Your task to perform on an android device: set the stopwatch Image 0: 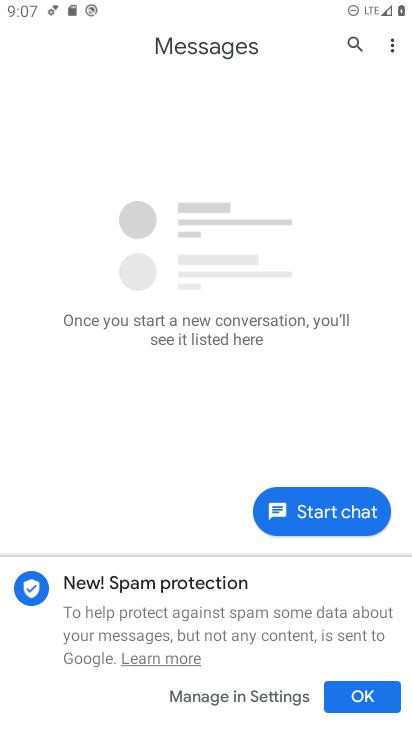
Step 0: press home button
Your task to perform on an android device: set the stopwatch Image 1: 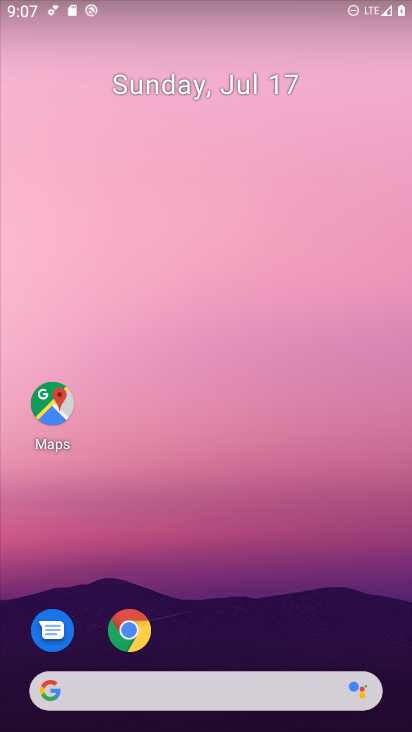
Step 1: drag from (226, 619) to (226, 271)
Your task to perform on an android device: set the stopwatch Image 2: 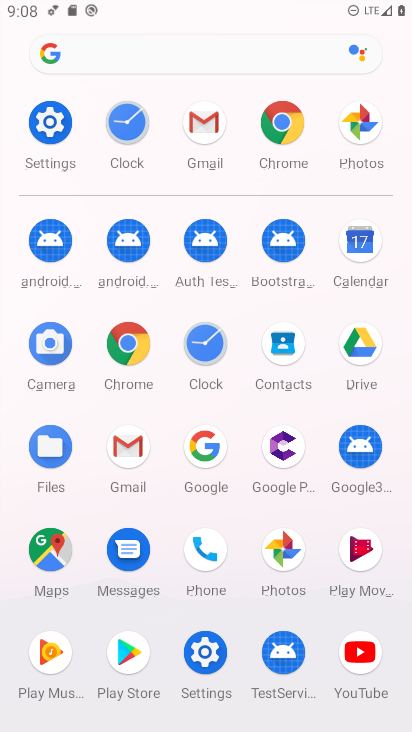
Step 2: click (220, 344)
Your task to perform on an android device: set the stopwatch Image 3: 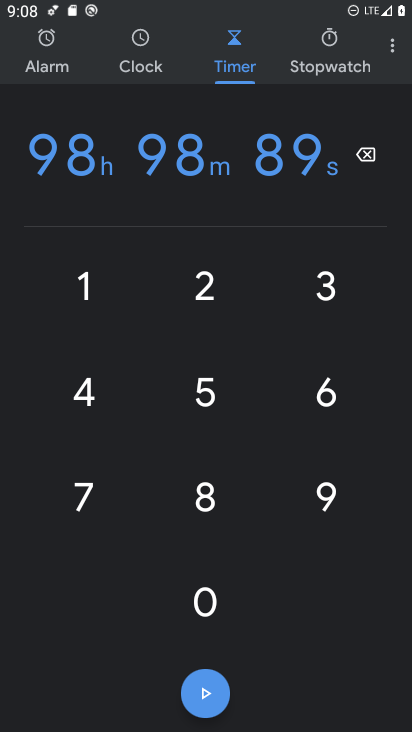
Step 3: click (314, 57)
Your task to perform on an android device: set the stopwatch Image 4: 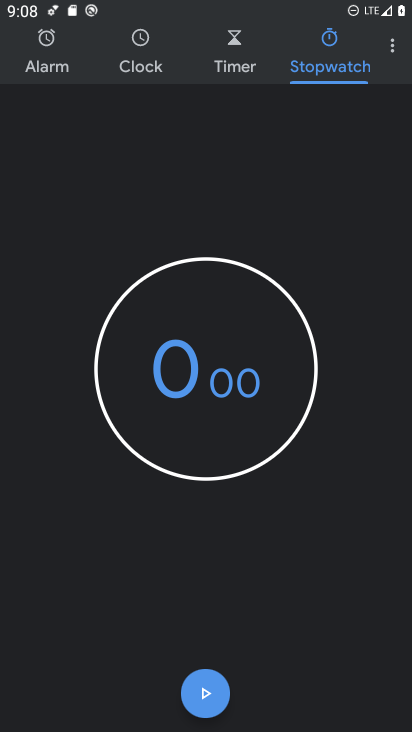
Step 4: task complete